Your task to perform on an android device: Open Chrome and go to settings Image 0: 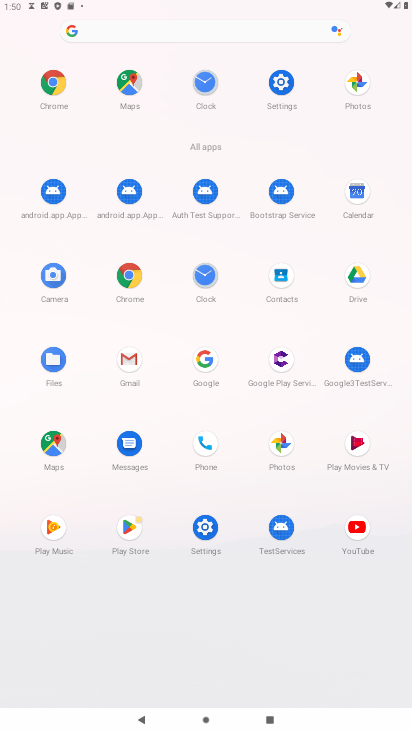
Step 0: press home button
Your task to perform on an android device: Open Chrome and go to settings Image 1: 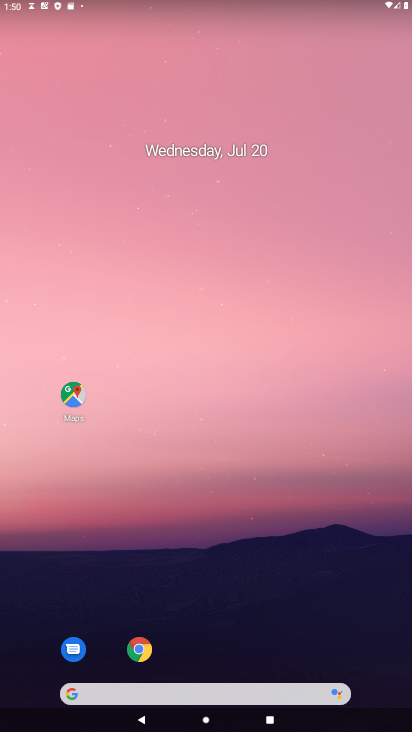
Step 1: click (139, 654)
Your task to perform on an android device: Open Chrome and go to settings Image 2: 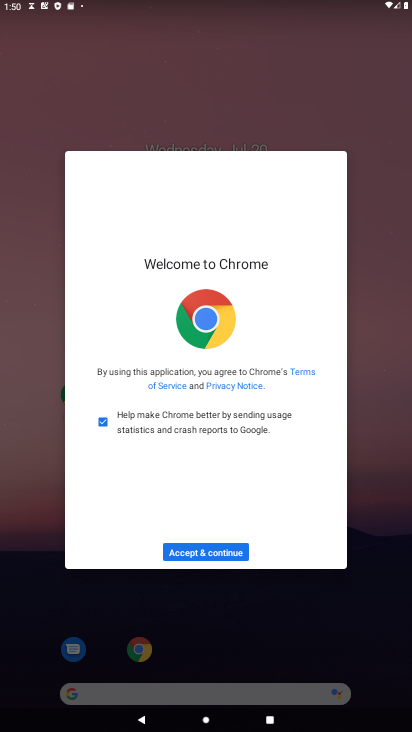
Step 2: click (201, 557)
Your task to perform on an android device: Open Chrome and go to settings Image 3: 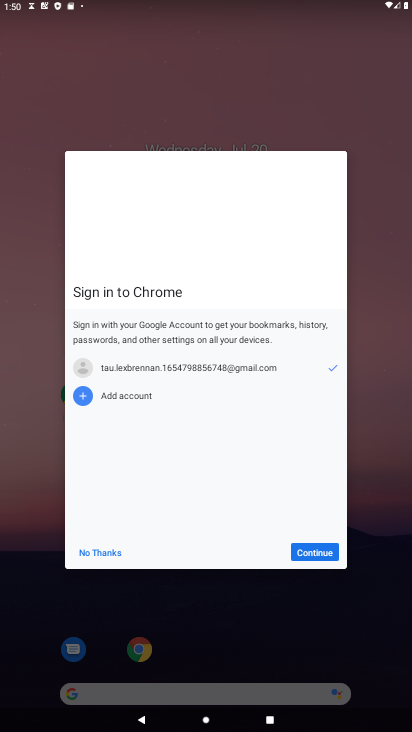
Step 3: click (306, 551)
Your task to perform on an android device: Open Chrome and go to settings Image 4: 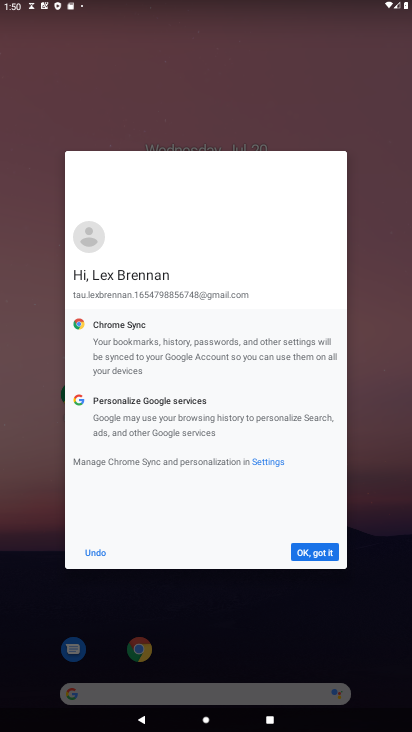
Step 4: click (306, 551)
Your task to perform on an android device: Open Chrome and go to settings Image 5: 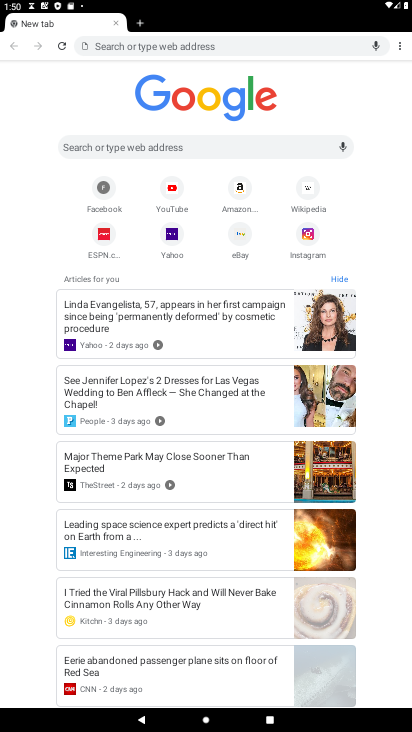
Step 5: click (398, 41)
Your task to perform on an android device: Open Chrome and go to settings Image 6: 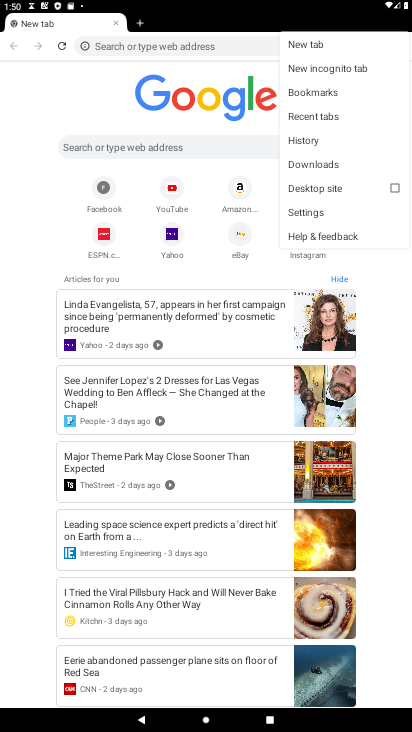
Step 6: click (324, 204)
Your task to perform on an android device: Open Chrome and go to settings Image 7: 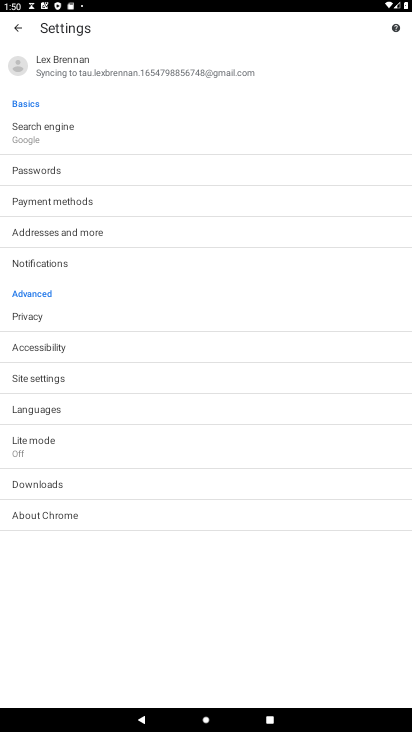
Step 7: task complete